Your task to perform on an android device: add a contact in the contacts app Image 0: 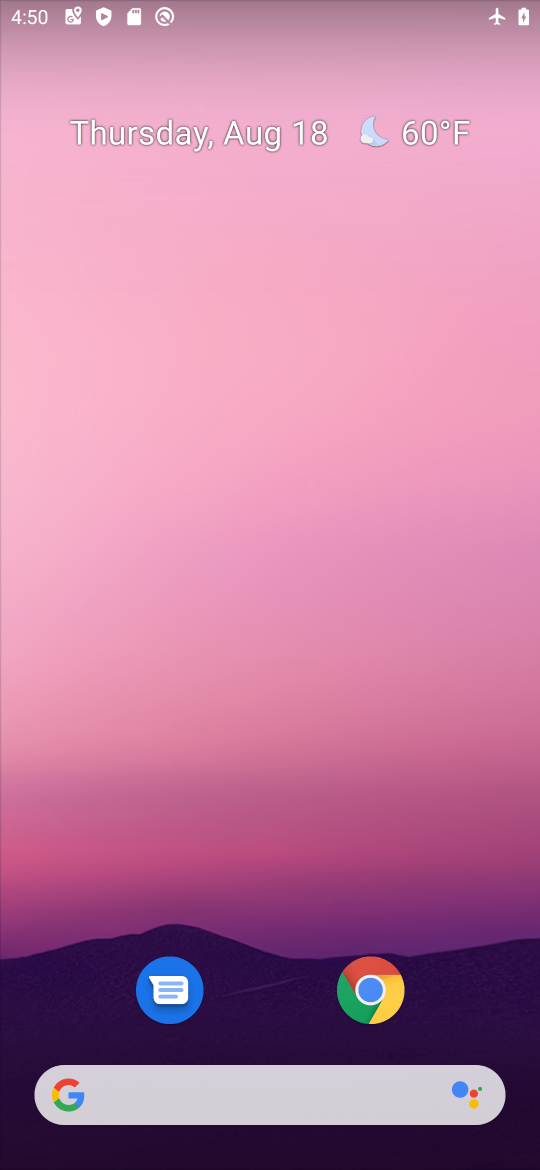
Step 0: drag from (274, 833) to (370, 2)
Your task to perform on an android device: add a contact in the contacts app Image 1: 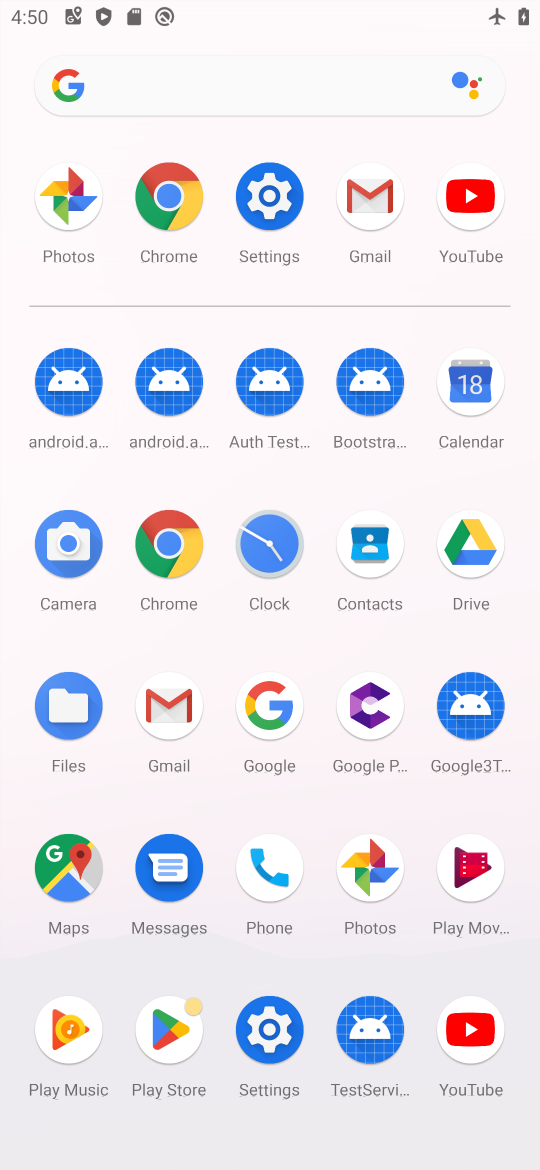
Step 1: click (382, 525)
Your task to perform on an android device: add a contact in the contacts app Image 2: 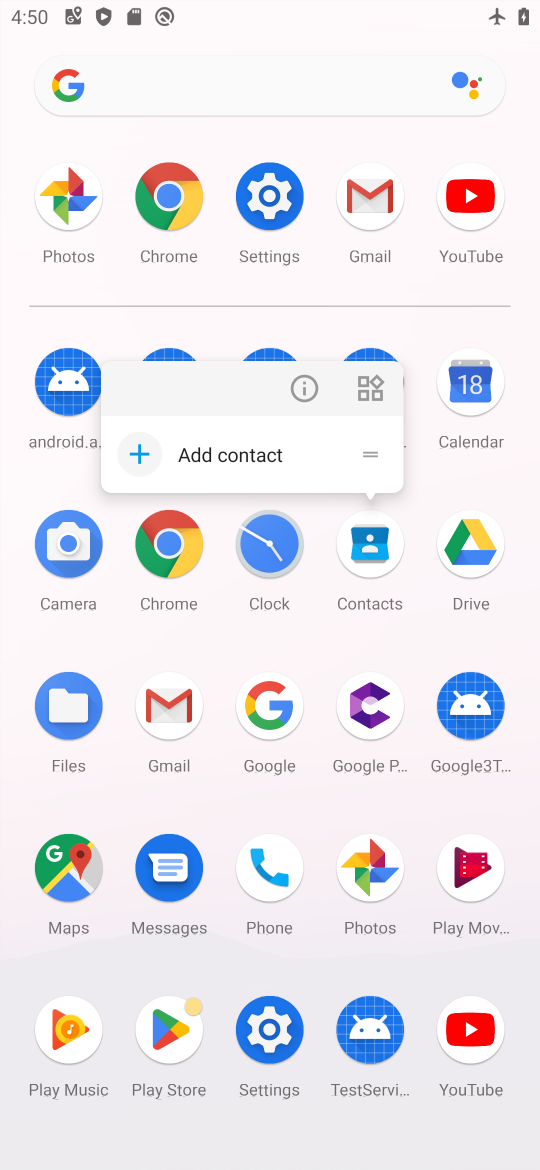
Step 2: click (375, 547)
Your task to perform on an android device: add a contact in the contacts app Image 3: 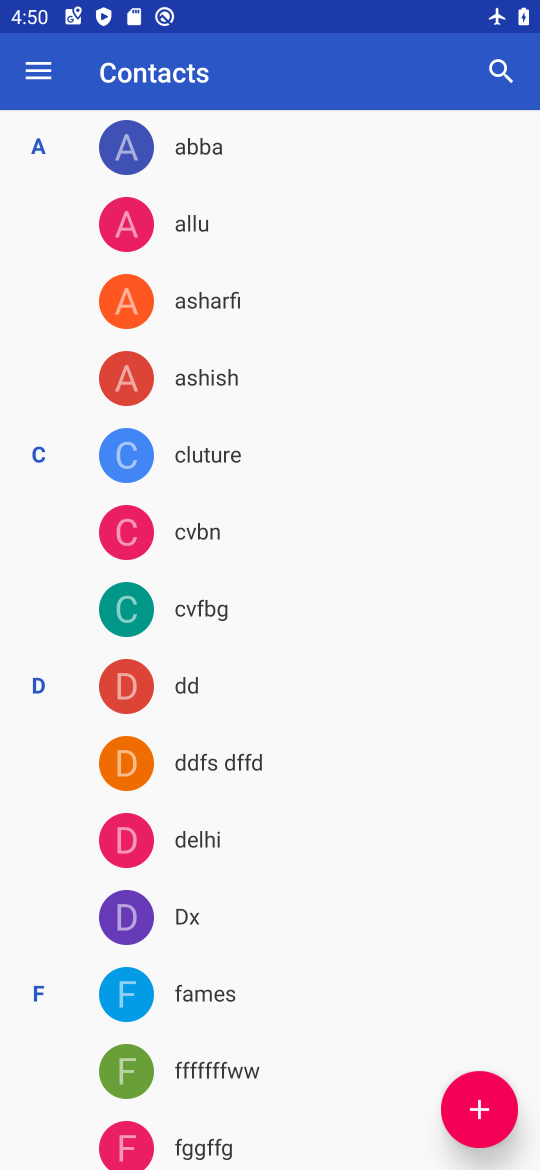
Step 3: click (477, 1127)
Your task to perform on an android device: add a contact in the contacts app Image 4: 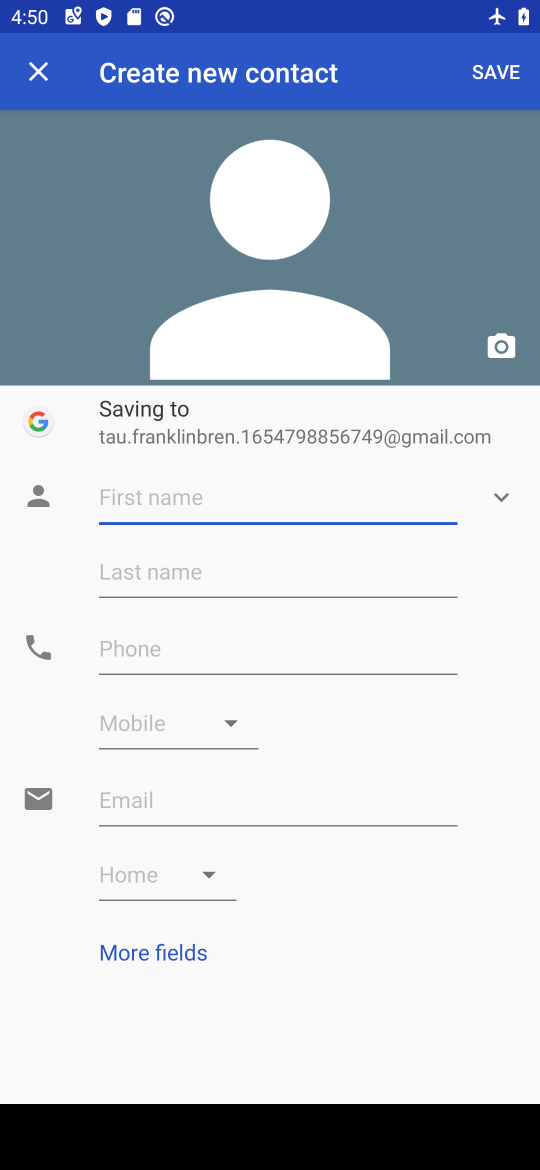
Step 4: type "poljjhg"
Your task to perform on an android device: add a contact in the contacts app Image 5: 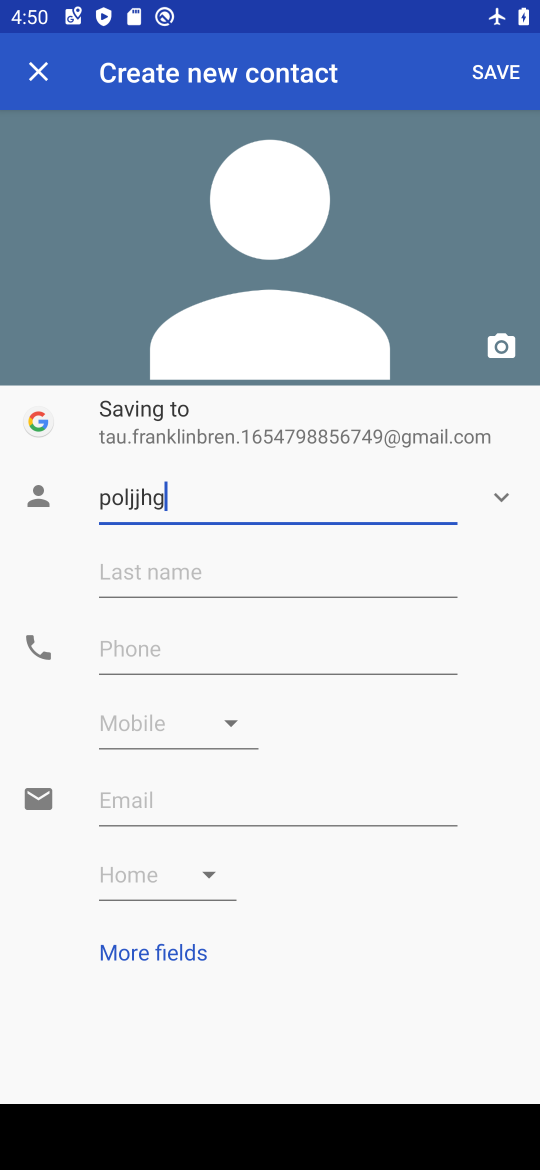
Step 5: type ""
Your task to perform on an android device: add a contact in the contacts app Image 6: 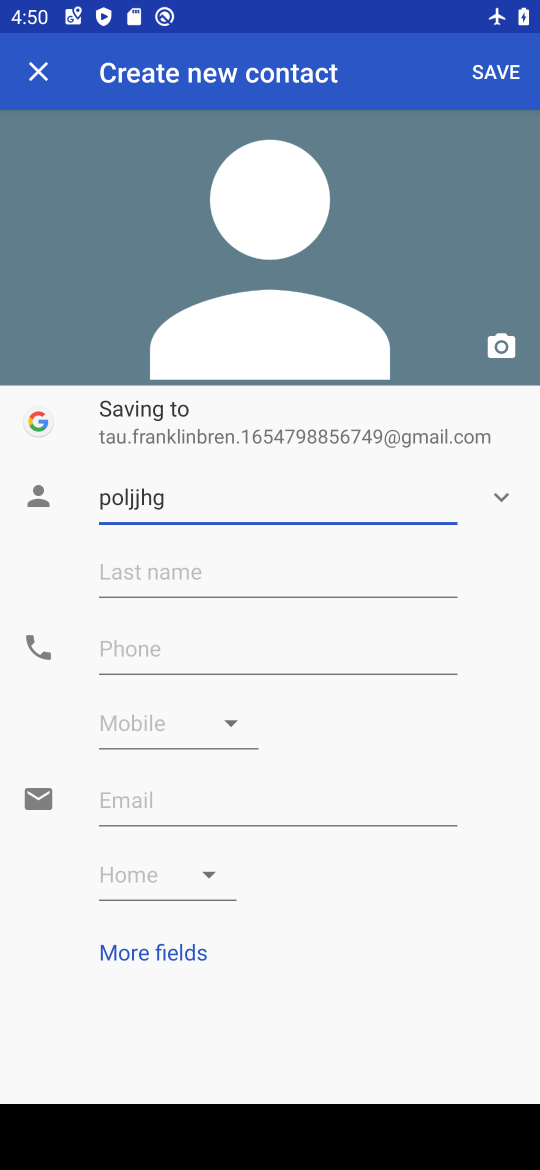
Step 6: click (495, 73)
Your task to perform on an android device: add a contact in the contacts app Image 7: 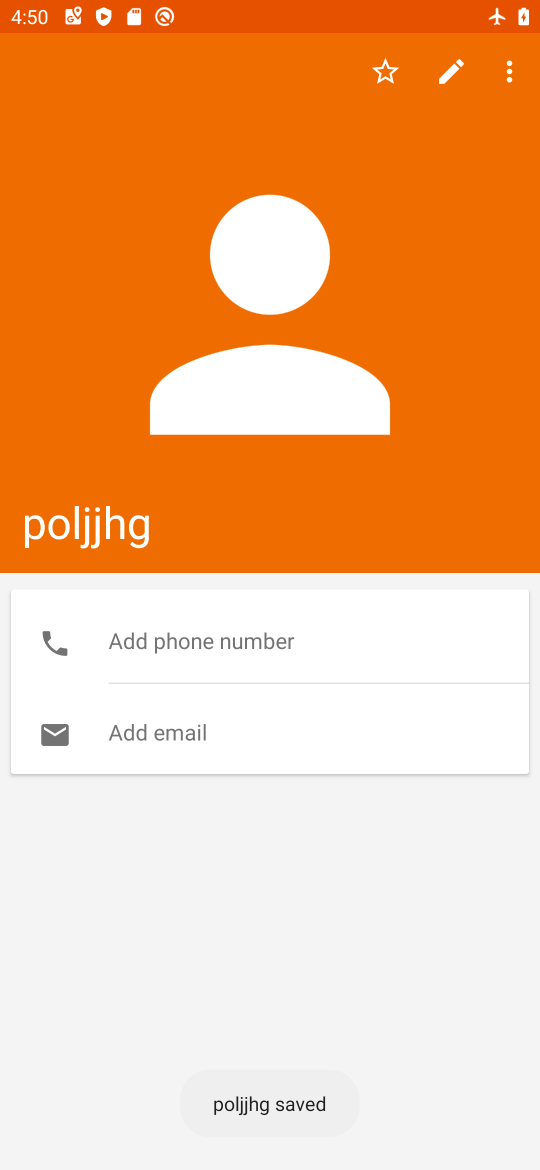
Step 7: task complete